Your task to perform on an android device: Go to network settings Image 0: 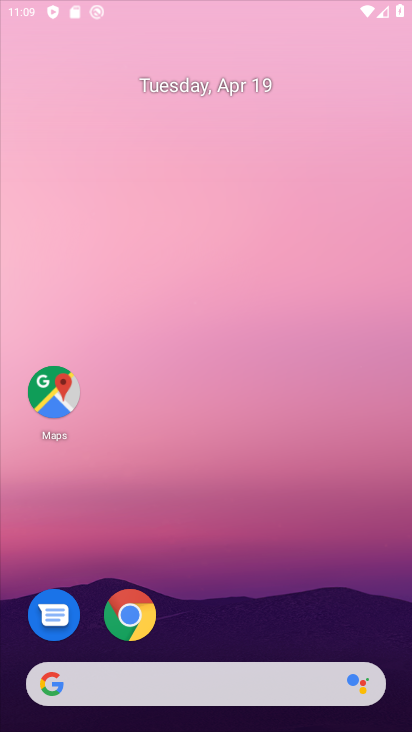
Step 0: drag from (235, 203) to (228, 96)
Your task to perform on an android device: Go to network settings Image 1: 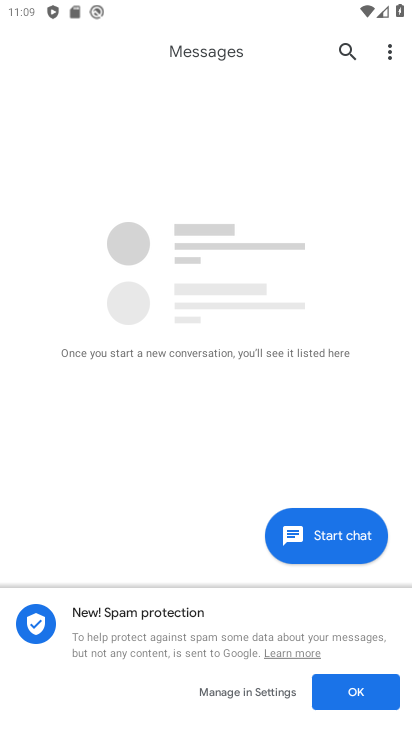
Step 1: press home button
Your task to perform on an android device: Go to network settings Image 2: 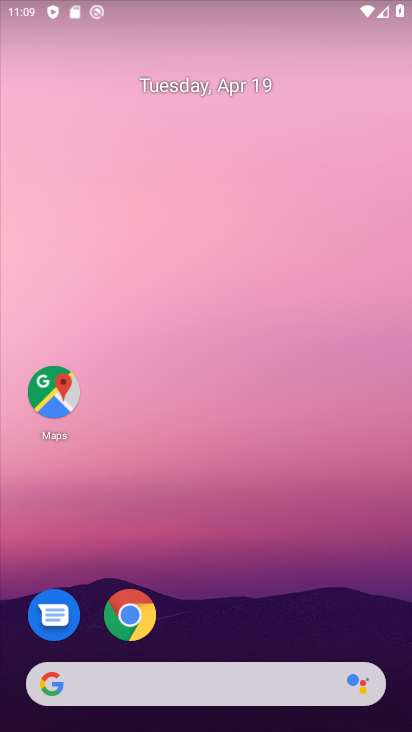
Step 2: drag from (240, 561) to (251, 100)
Your task to perform on an android device: Go to network settings Image 3: 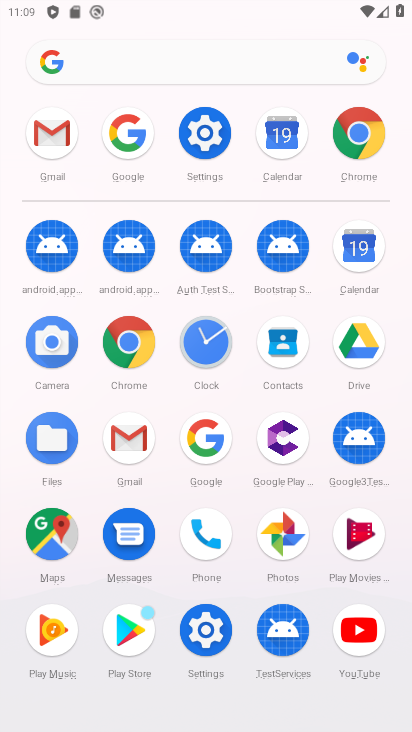
Step 3: click (205, 130)
Your task to perform on an android device: Go to network settings Image 4: 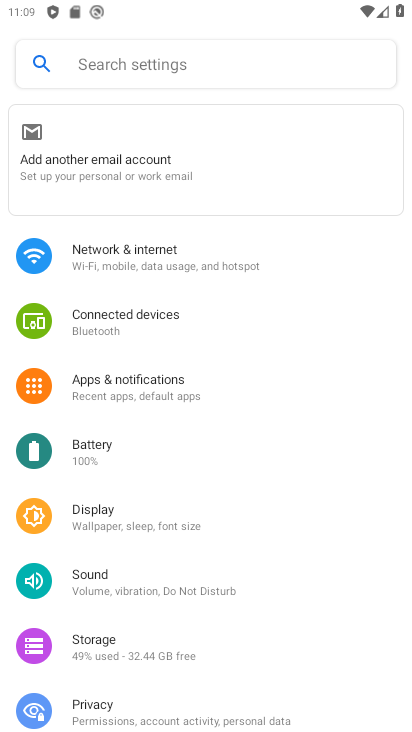
Step 4: click (133, 246)
Your task to perform on an android device: Go to network settings Image 5: 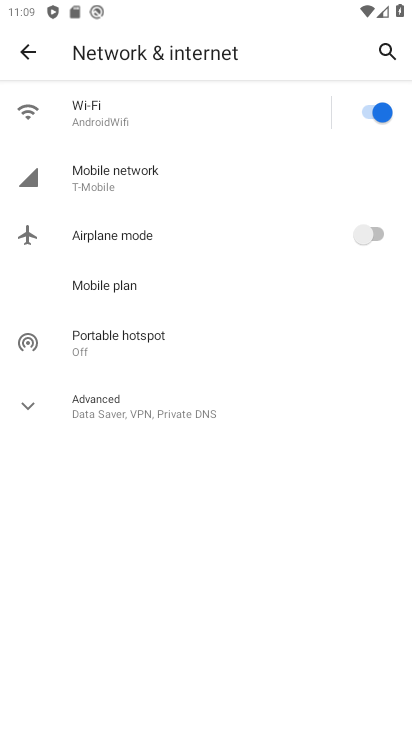
Step 5: click (131, 179)
Your task to perform on an android device: Go to network settings Image 6: 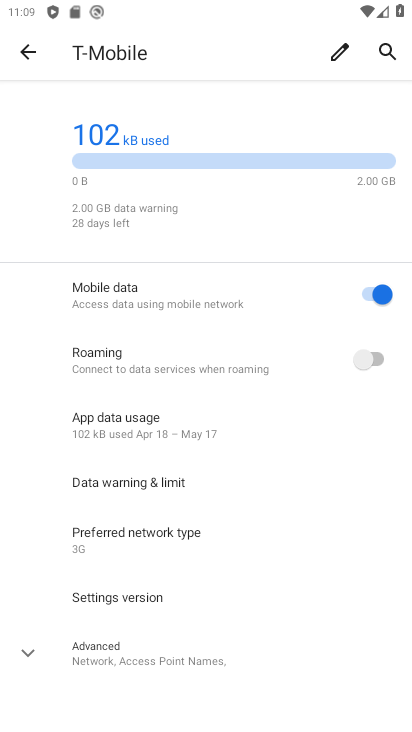
Step 6: task complete